Your task to perform on an android device: turn off improve location accuracy Image 0: 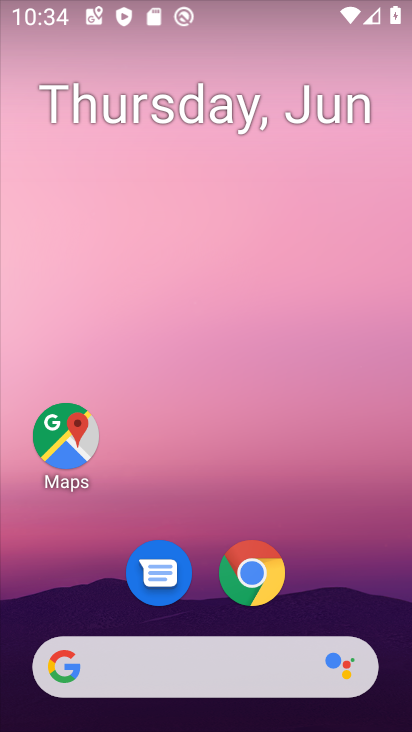
Step 0: drag from (203, 617) to (198, 50)
Your task to perform on an android device: turn off improve location accuracy Image 1: 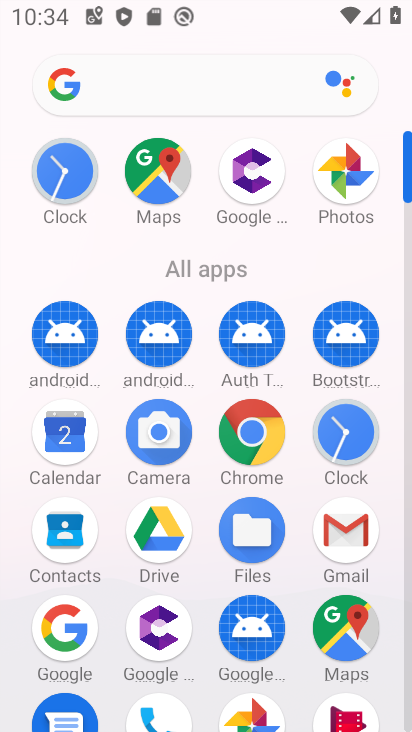
Step 1: drag from (203, 597) to (203, 97)
Your task to perform on an android device: turn off improve location accuracy Image 2: 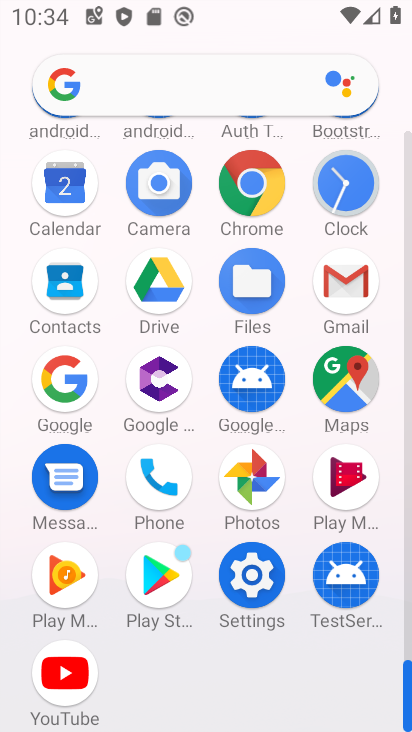
Step 2: click (249, 568)
Your task to perform on an android device: turn off improve location accuracy Image 3: 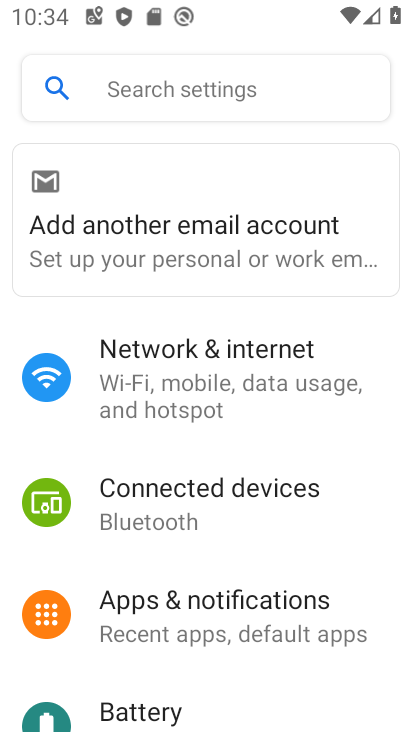
Step 3: drag from (228, 689) to (269, 34)
Your task to perform on an android device: turn off improve location accuracy Image 4: 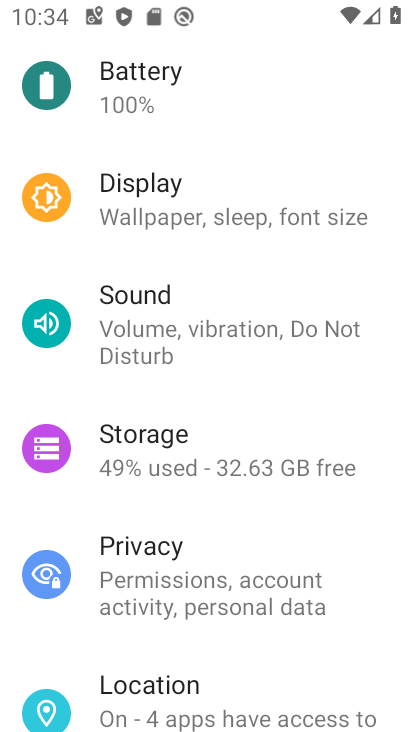
Step 4: click (216, 687)
Your task to perform on an android device: turn off improve location accuracy Image 5: 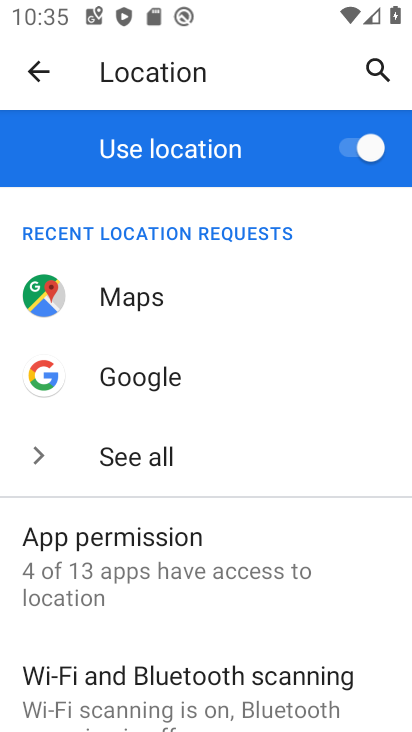
Step 5: drag from (170, 690) to (196, 167)
Your task to perform on an android device: turn off improve location accuracy Image 6: 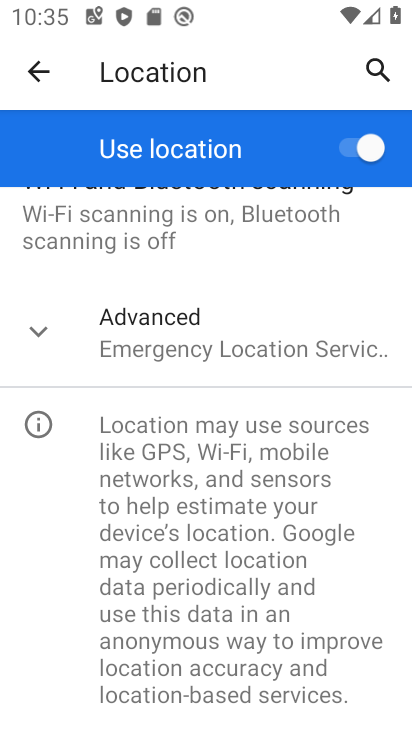
Step 6: click (44, 330)
Your task to perform on an android device: turn off improve location accuracy Image 7: 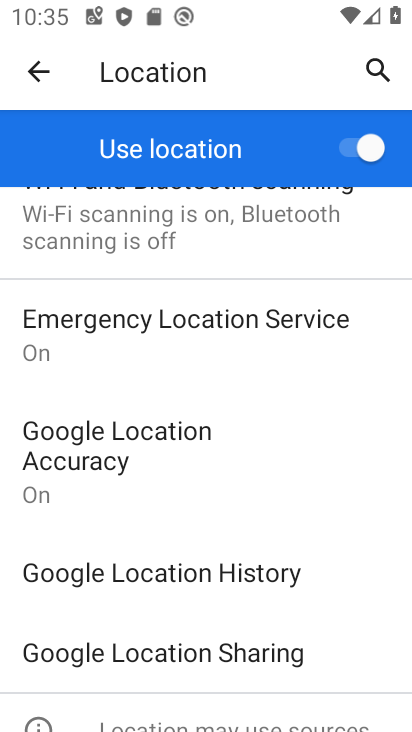
Step 7: click (143, 455)
Your task to perform on an android device: turn off improve location accuracy Image 8: 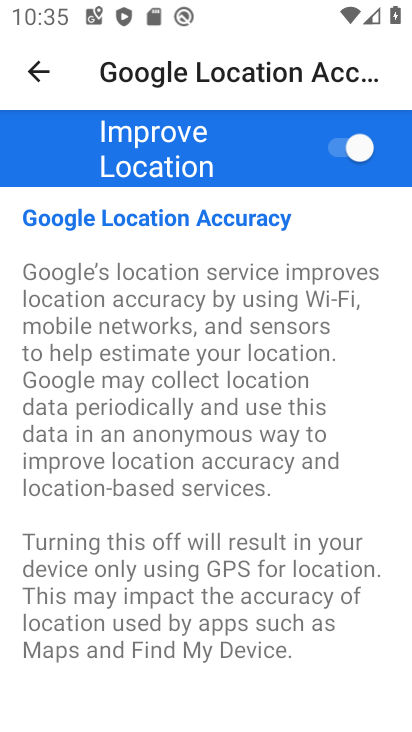
Step 8: click (342, 137)
Your task to perform on an android device: turn off improve location accuracy Image 9: 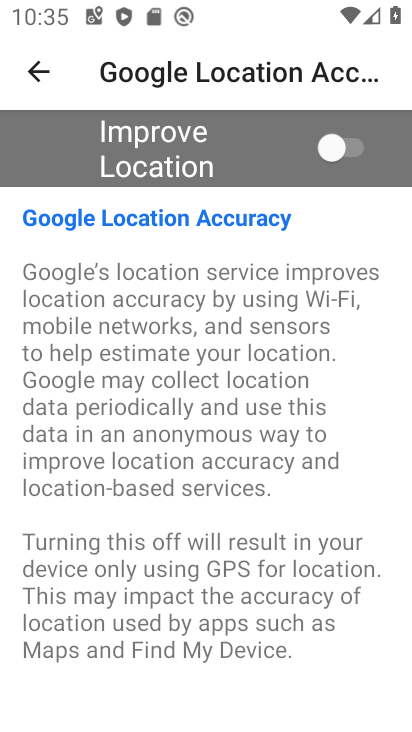
Step 9: task complete